Your task to perform on an android device: Turn off the flashlight Image 0: 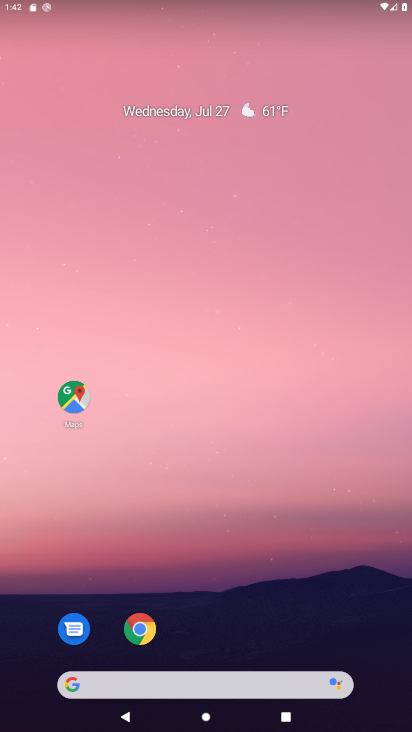
Step 0: drag from (152, 132) to (124, 548)
Your task to perform on an android device: Turn off the flashlight Image 1: 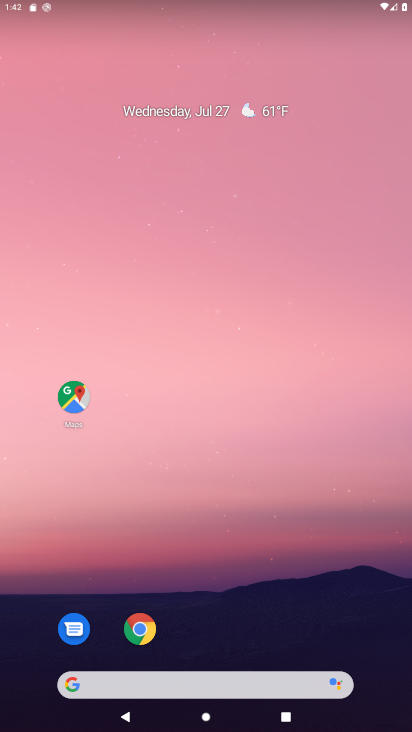
Step 1: task complete